Your task to perform on an android device: check the backup settings in the google photos Image 0: 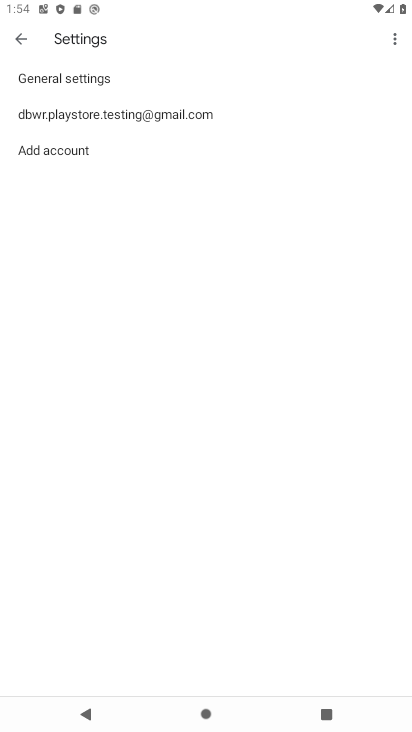
Step 0: press home button
Your task to perform on an android device: check the backup settings in the google photos Image 1: 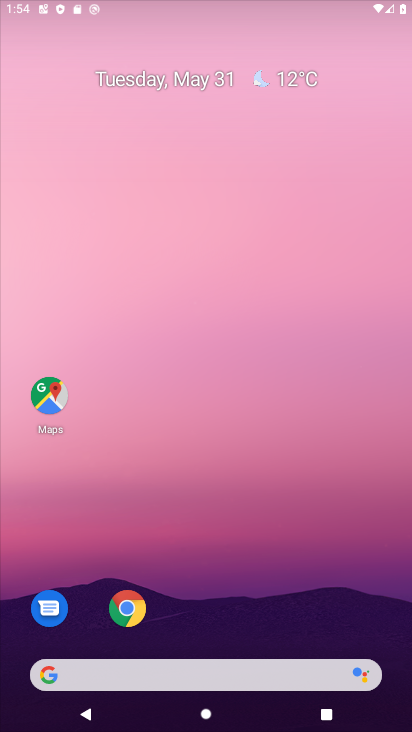
Step 1: drag from (321, 500) to (275, 125)
Your task to perform on an android device: check the backup settings in the google photos Image 2: 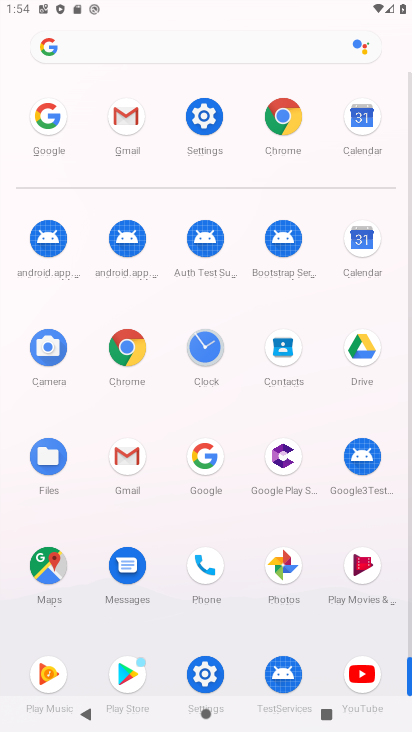
Step 2: click (287, 543)
Your task to perform on an android device: check the backup settings in the google photos Image 3: 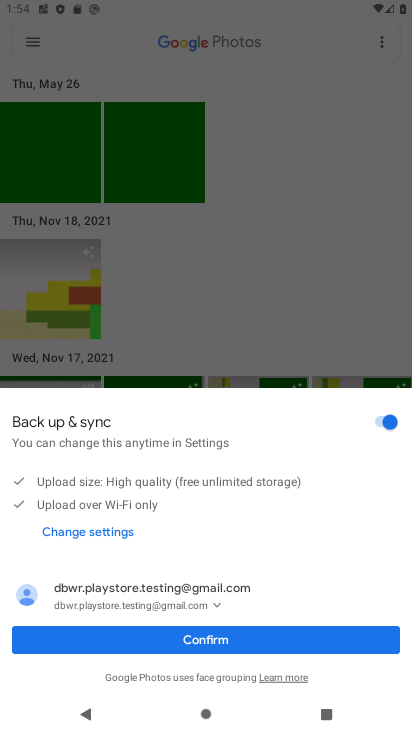
Step 3: click (263, 648)
Your task to perform on an android device: check the backup settings in the google photos Image 4: 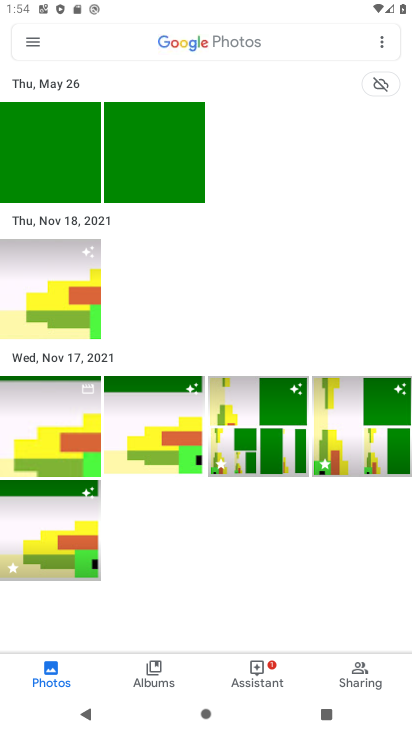
Step 4: click (22, 47)
Your task to perform on an android device: check the backup settings in the google photos Image 5: 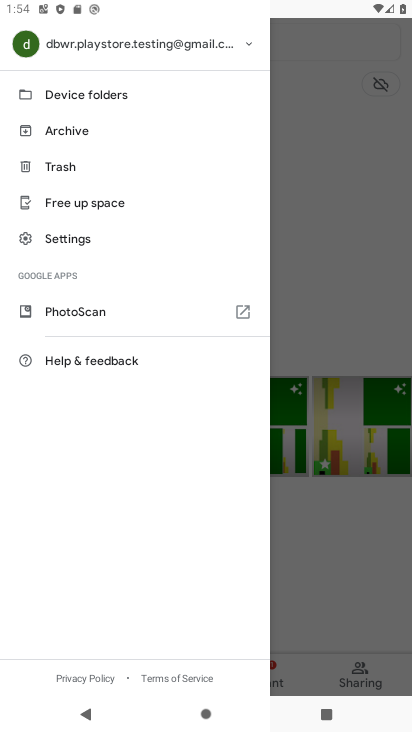
Step 5: click (102, 245)
Your task to perform on an android device: check the backup settings in the google photos Image 6: 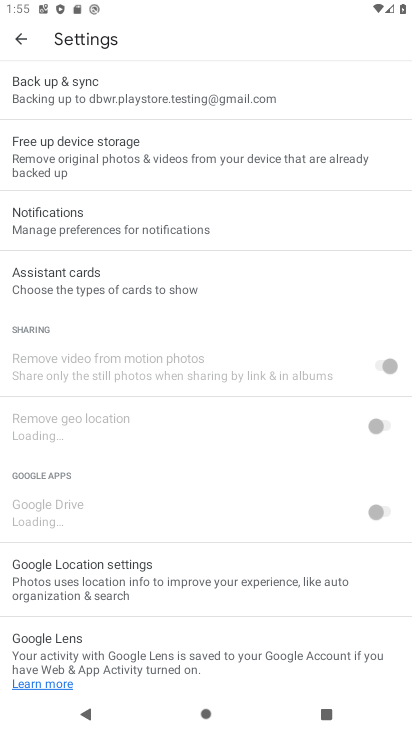
Step 6: click (128, 111)
Your task to perform on an android device: check the backup settings in the google photos Image 7: 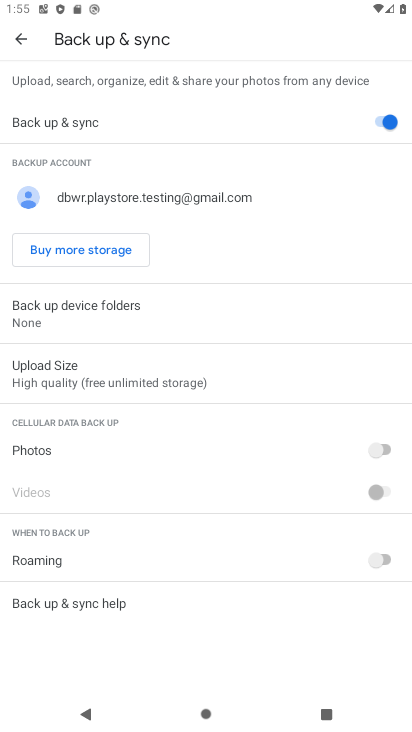
Step 7: task complete